Your task to perform on an android device: turn on the 12-hour format for clock Image 0: 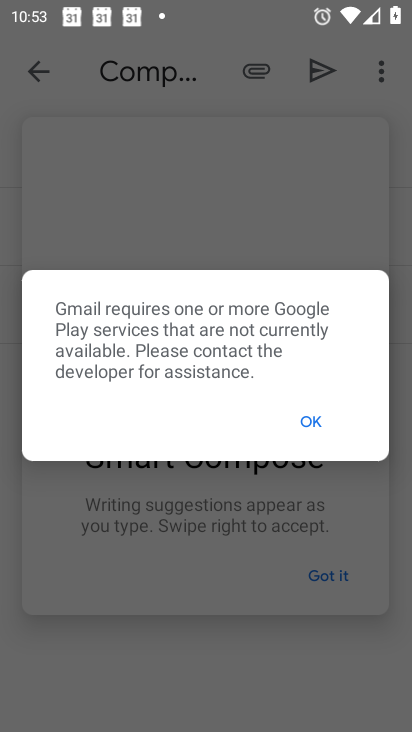
Step 0: press home button
Your task to perform on an android device: turn on the 12-hour format for clock Image 1: 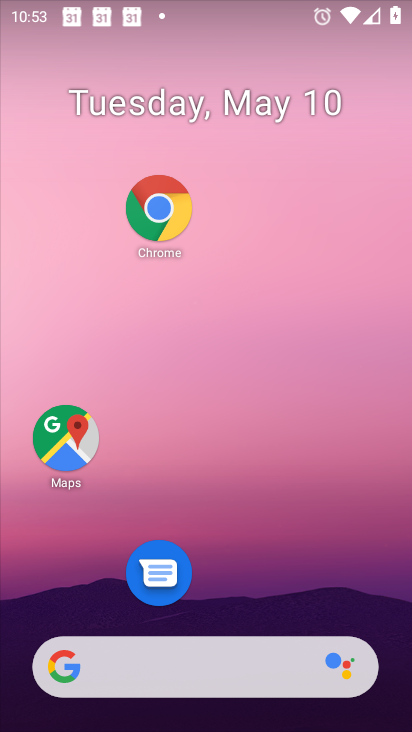
Step 1: drag from (256, 706) to (252, 268)
Your task to perform on an android device: turn on the 12-hour format for clock Image 2: 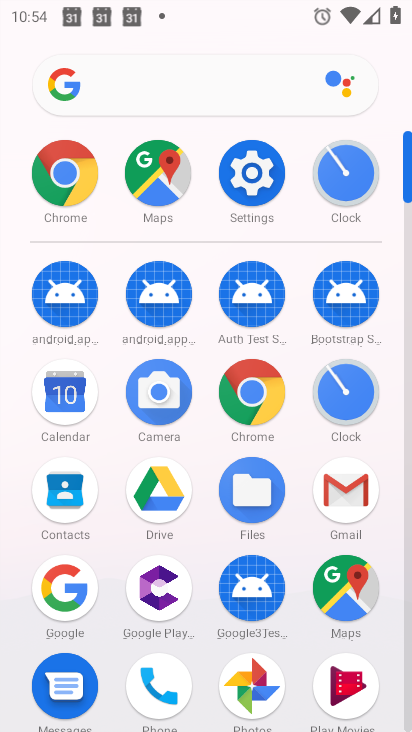
Step 2: click (365, 390)
Your task to perform on an android device: turn on the 12-hour format for clock Image 3: 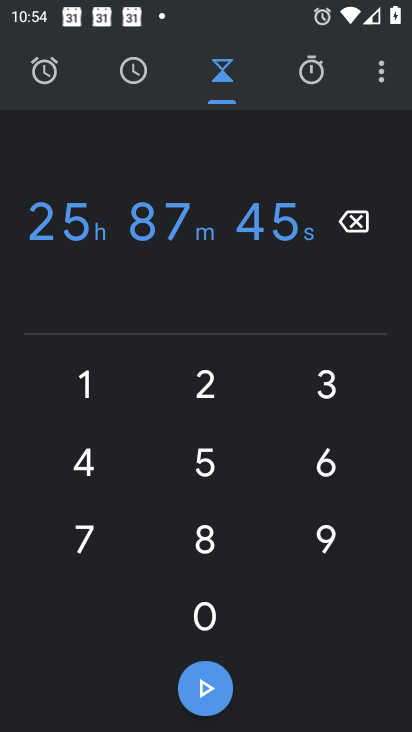
Step 3: click (378, 79)
Your task to perform on an android device: turn on the 12-hour format for clock Image 4: 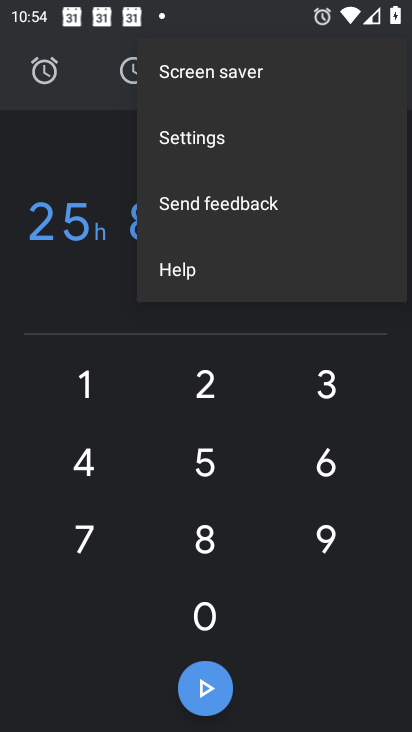
Step 4: click (214, 134)
Your task to perform on an android device: turn on the 12-hour format for clock Image 5: 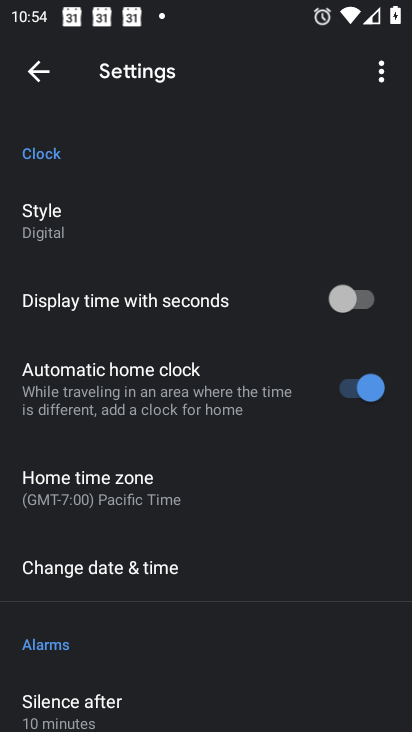
Step 5: click (123, 559)
Your task to perform on an android device: turn on the 12-hour format for clock Image 6: 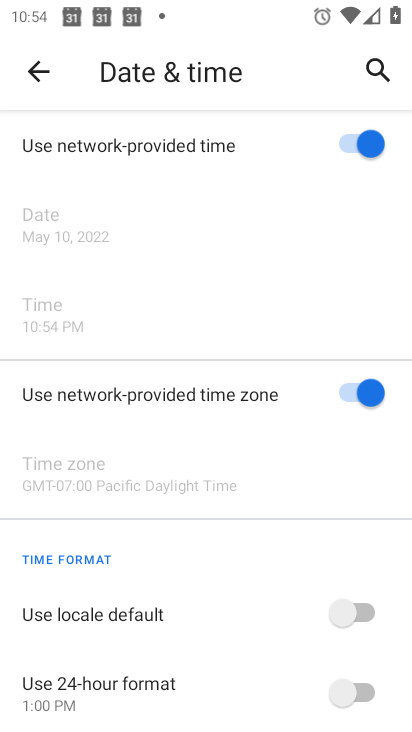
Step 6: click (351, 698)
Your task to perform on an android device: turn on the 12-hour format for clock Image 7: 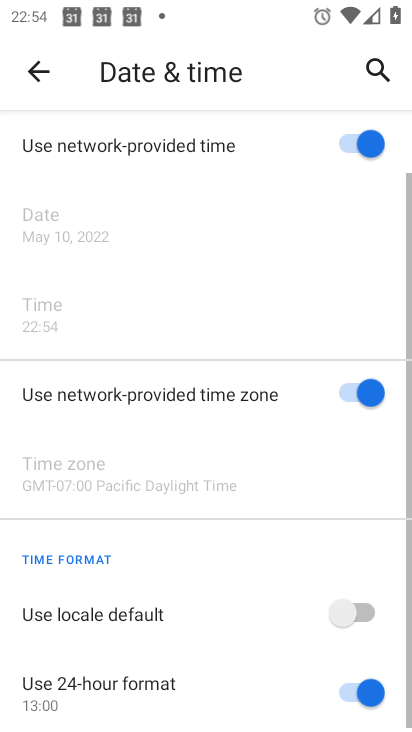
Step 7: click (350, 699)
Your task to perform on an android device: turn on the 12-hour format for clock Image 8: 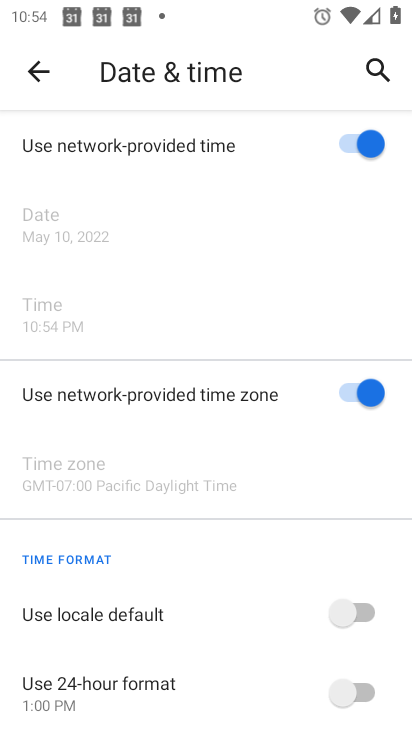
Step 8: task complete